Your task to perform on an android device: change the clock display to digital Image 0: 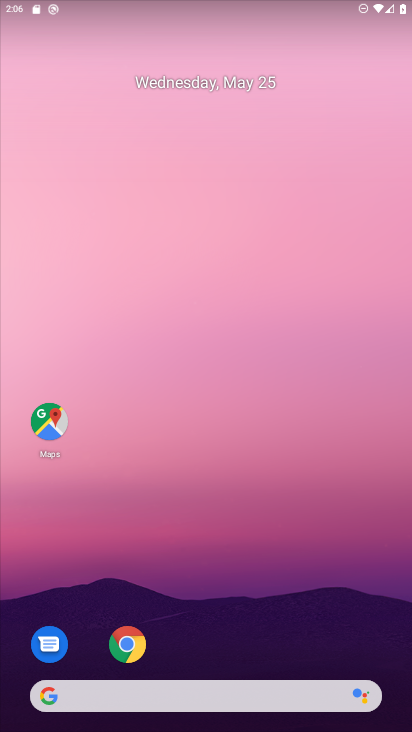
Step 0: drag from (246, 668) to (242, 94)
Your task to perform on an android device: change the clock display to digital Image 1: 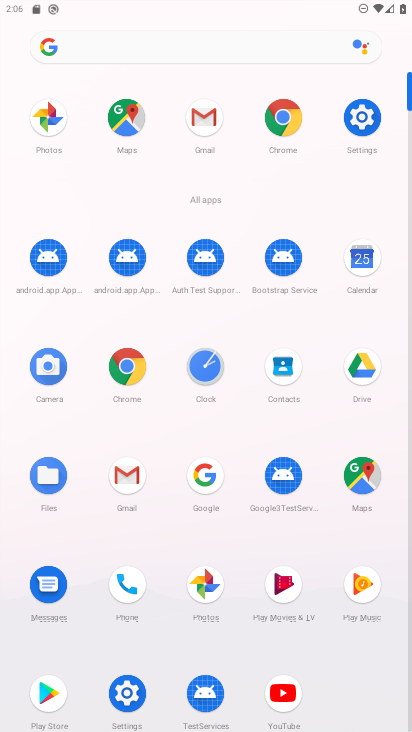
Step 1: click (195, 358)
Your task to perform on an android device: change the clock display to digital Image 2: 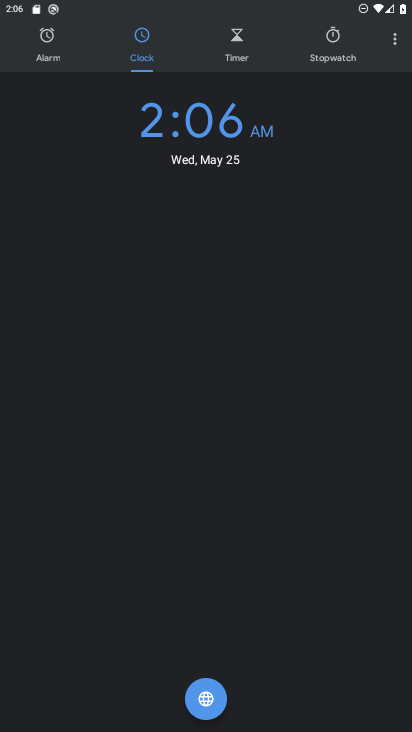
Step 2: click (395, 42)
Your task to perform on an android device: change the clock display to digital Image 3: 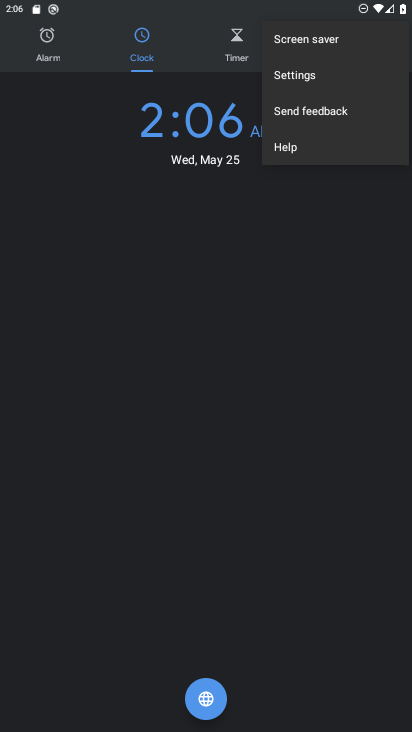
Step 3: click (359, 69)
Your task to perform on an android device: change the clock display to digital Image 4: 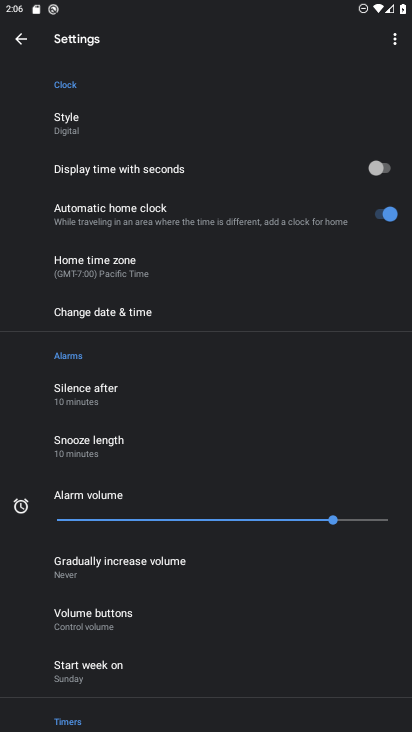
Step 4: click (130, 131)
Your task to perform on an android device: change the clock display to digital Image 5: 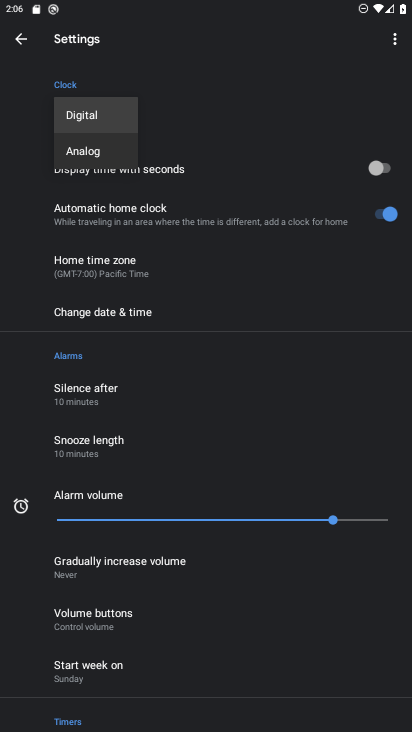
Step 5: click (130, 131)
Your task to perform on an android device: change the clock display to digital Image 6: 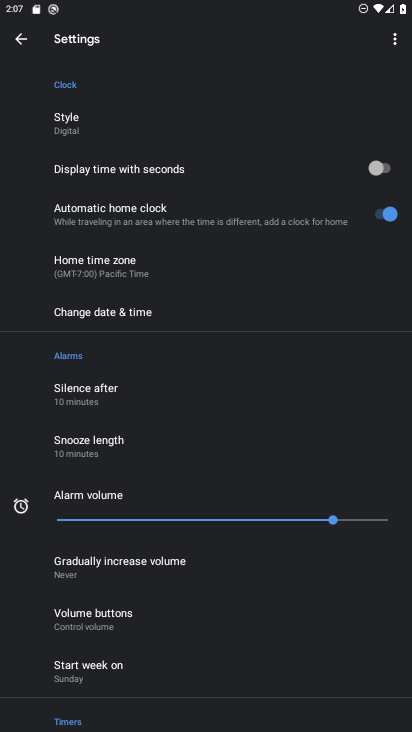
Step 6: task complete